Your task to perform on an android device: see creations saved in the google photos Image 0: 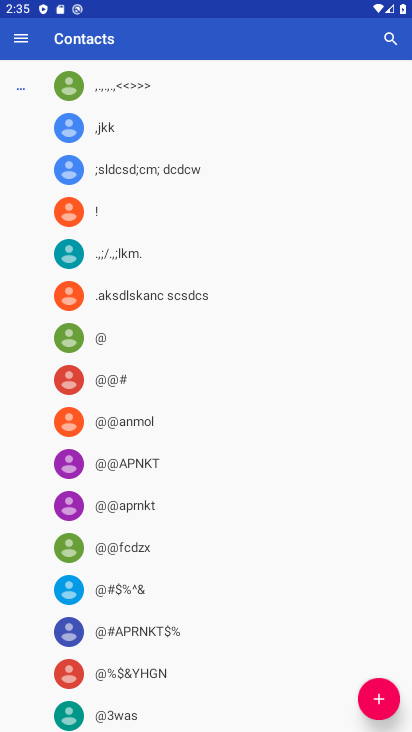
Step 0: press home button
Your task to perform on an android device: see creations saved in the google photos Image 1: 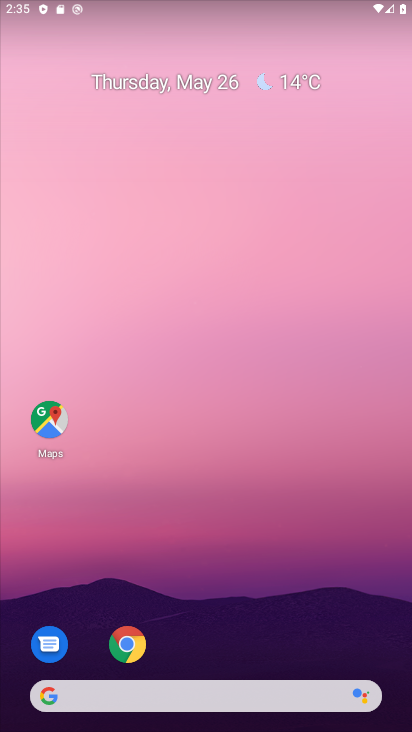
Step 1: drag from (376, 577) to (374, 203)
Your task to perform on an android device: see creations saved in the google photos Image 2: 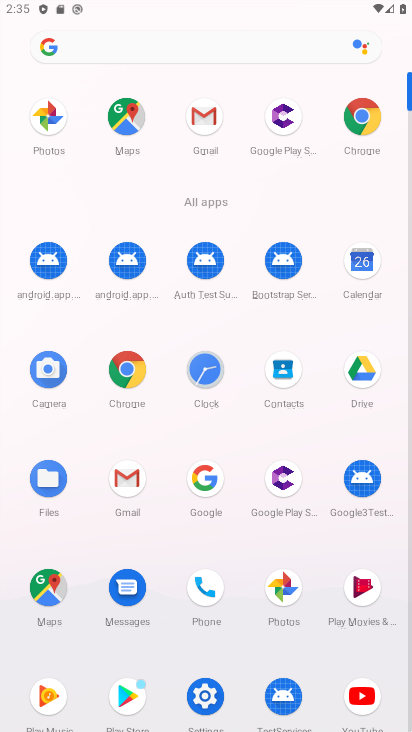
Step 2: click (277, 583)
Your task to perform on an android device: see creations saved in the google photos Image 3: 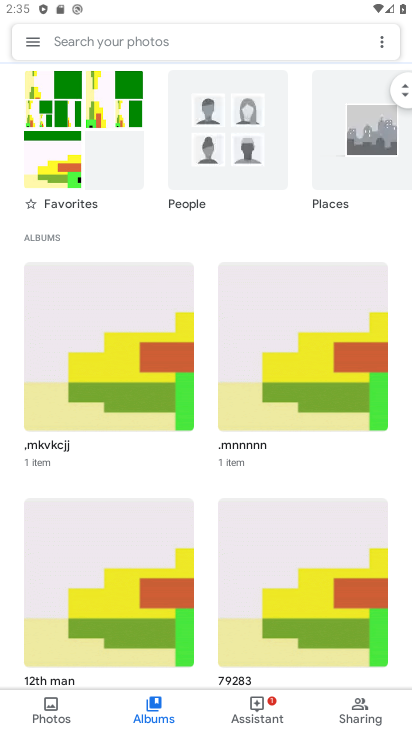
Step 3: click (114, 32)
Your task to perform on an android device: see creations saved in the google photos Image 4: 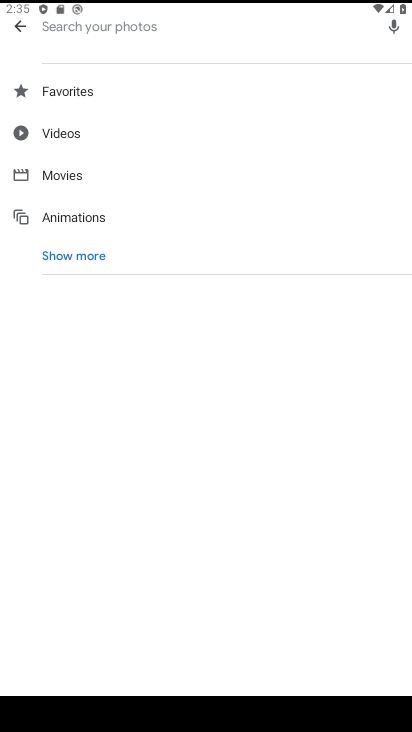
Step 4: type "creations "
Your task to perform on an android device: see creations saved in the google photos Image 5: 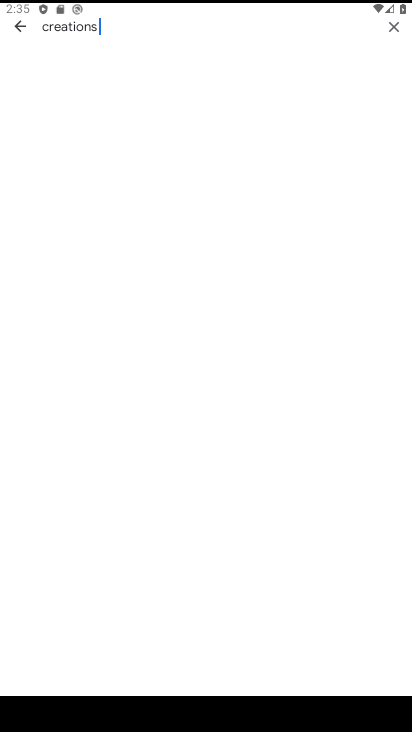
Step 5: task complete